Your task to perform on an android device: turn on javascript in the chrome app Image 0: 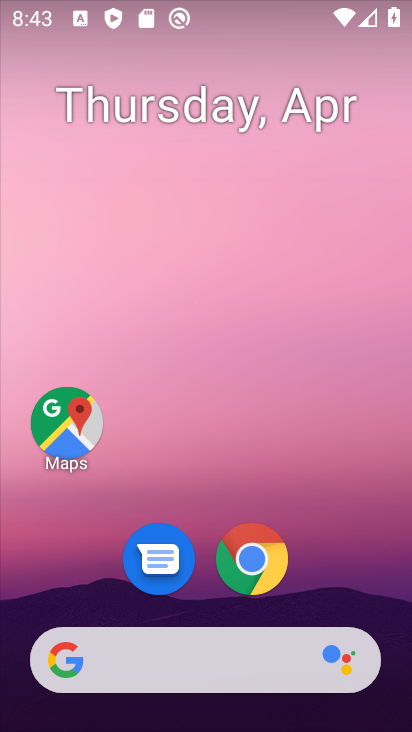
Step 0: click (240, 571)
Your task to perform on an android device: turn on javascript in the chrome app Image 1: 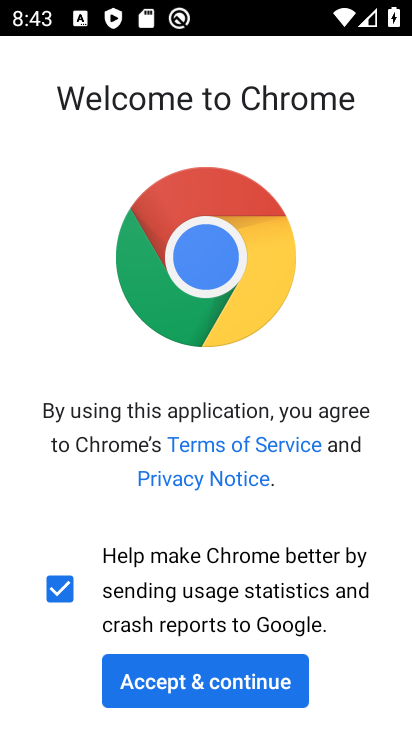
Step 1: click (257, 695)
Your task to perform on an android device: turn on javascript in the chrome app Image 2: 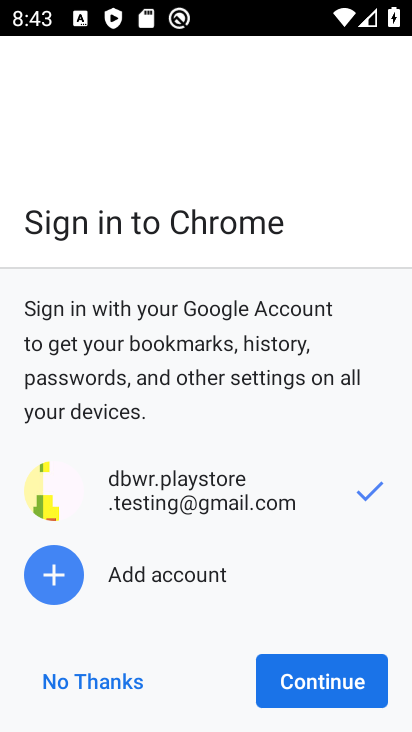
Step 2: click (274, 694)
Your task to perform on an android device: turn on javascript in the chrome app Image 3: 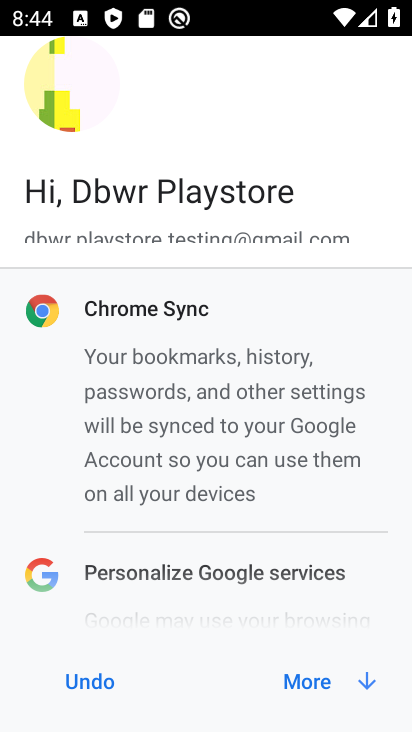
Step 3: click (316, 683)
Your task to perform on an android device: turn on javascript in the chrome app Image 4: 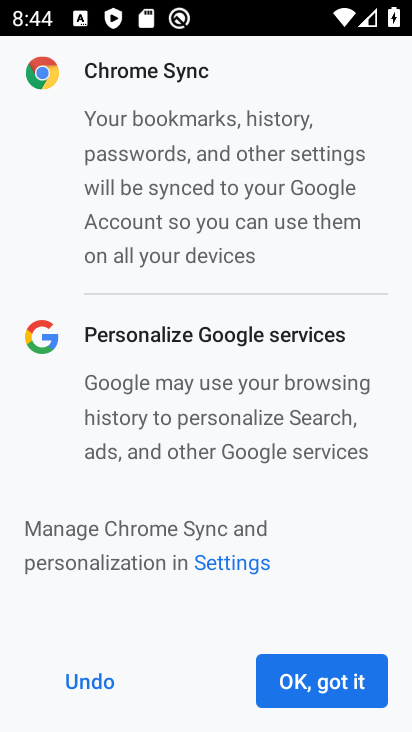
Step 4: click (316, 683)
Your task to perform on an android device: turn on javascript in the chrome app Image 5: 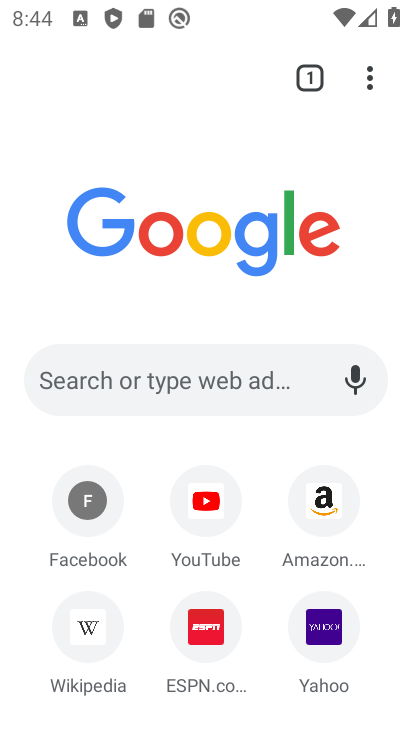
Step 5: click (363, 66)
Your task to perform on an android device: turn on javascript in the chrome app Image 6: 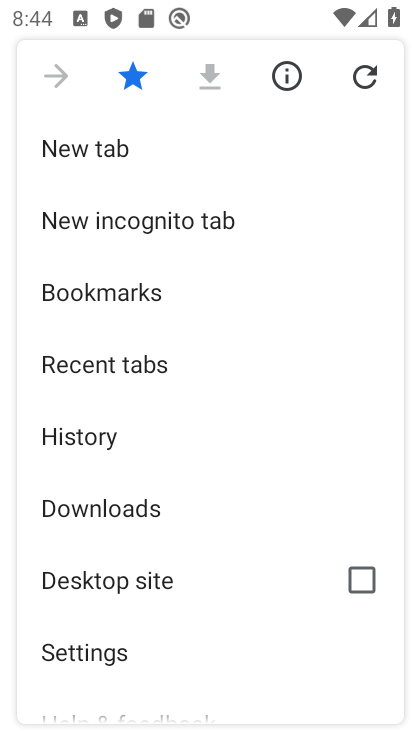
Step 6: click (82, 660)
Your task to perform on an android device: turn on javascript in the chrome app Image 7: 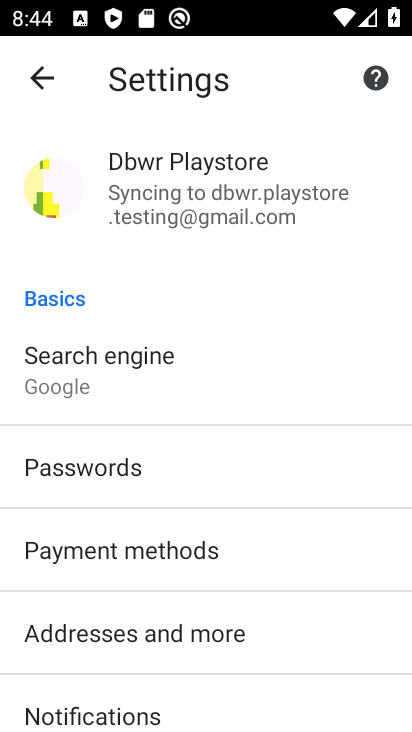
Step 7: drag from (285, 659) to (268, 2)
Your task to perform on an android device: turn on javascript in the chrome app Image 8: 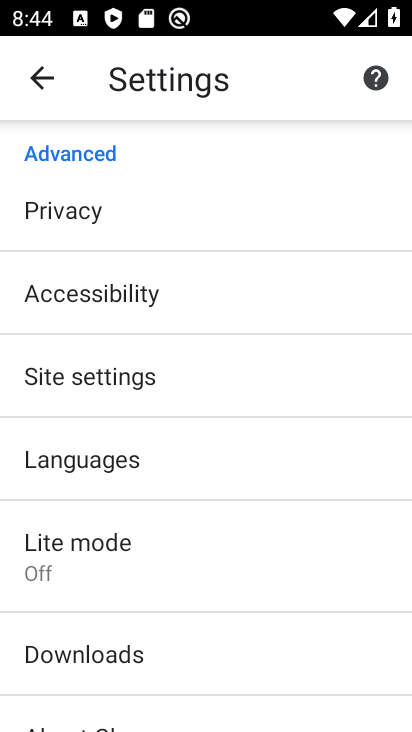
Step 8: click (134, 379)
Your task to perform on an android device: turn on javascript in the chrome app Image 9: 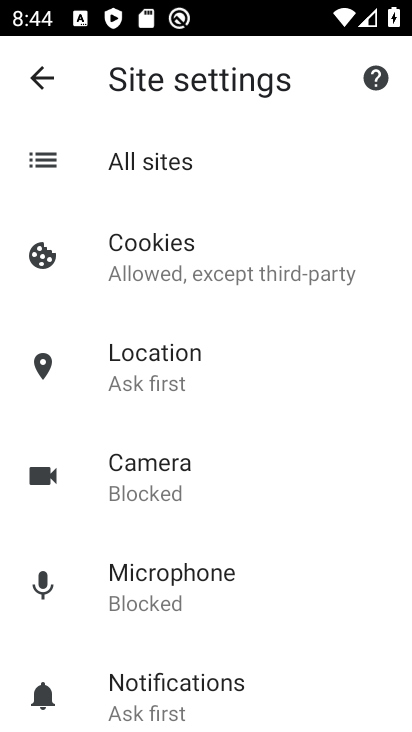
Step 9: drag from (299, 683) to (344, 192)
Your task to perform on an android device: turn on javascript in the chrome app Image 10: 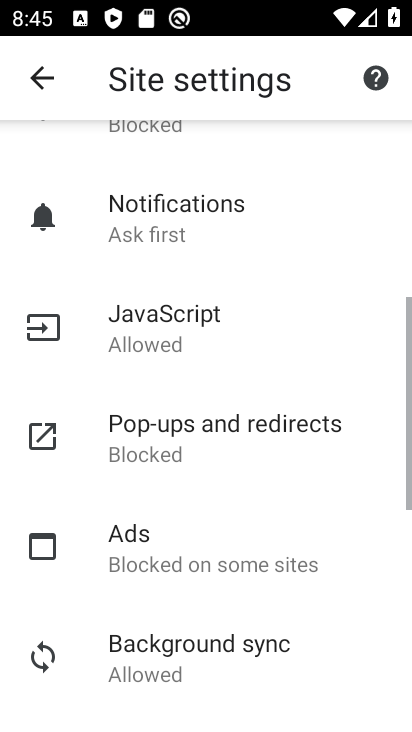
Step 10: click (228, 313)
Your task to perform on an android device: turn on javascript in the chrome app Image 11: 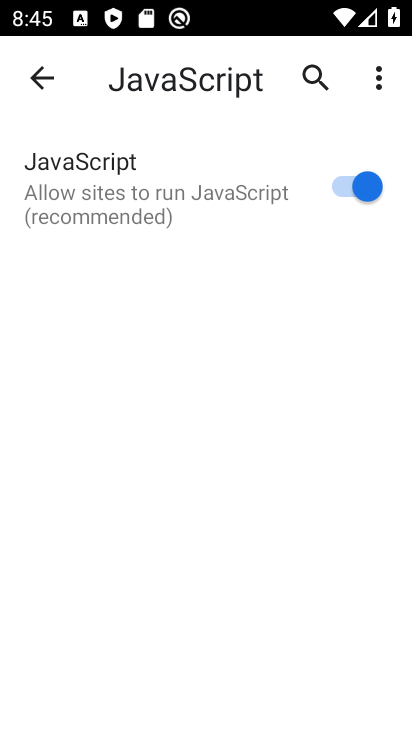
Step 11: task complete